Your task to perform on an android device: turn off notifications in google photos Image 0: 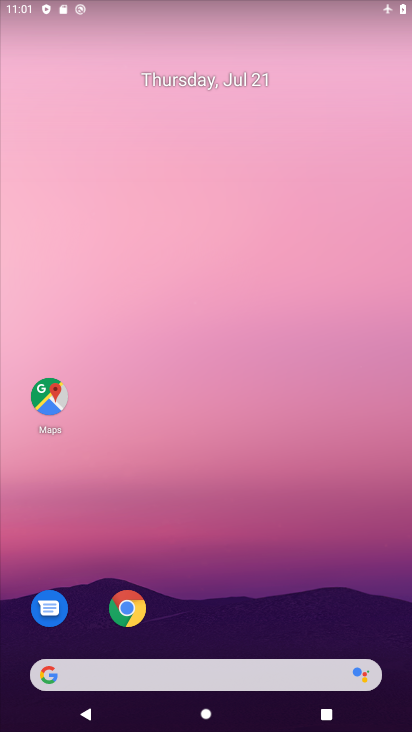
Step 0: drag from (319, 598) to (248, 200)
Your task to perform on an android device: turn off notifications in google photos Image 1: 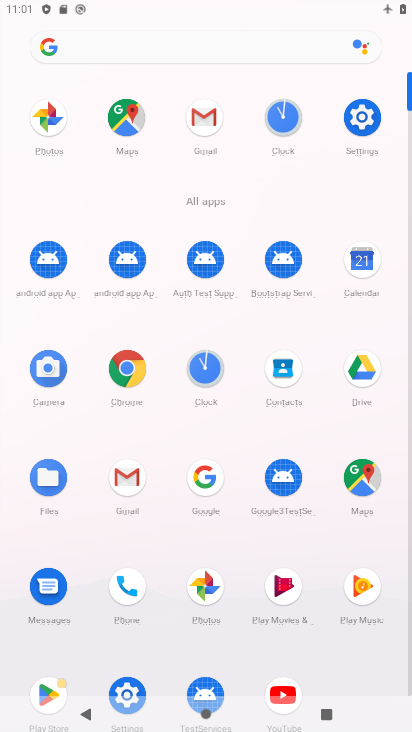
Step 1: click (216, 581)
Your task to perform on an android device: turn off notifications in google photos Image 2: 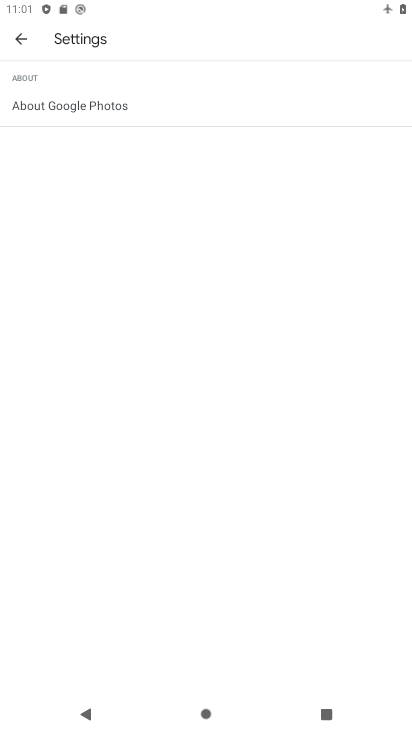
Step 2: click (24, 29)
Your task to perform on an android device: turn off notifications in google photos Image 3: 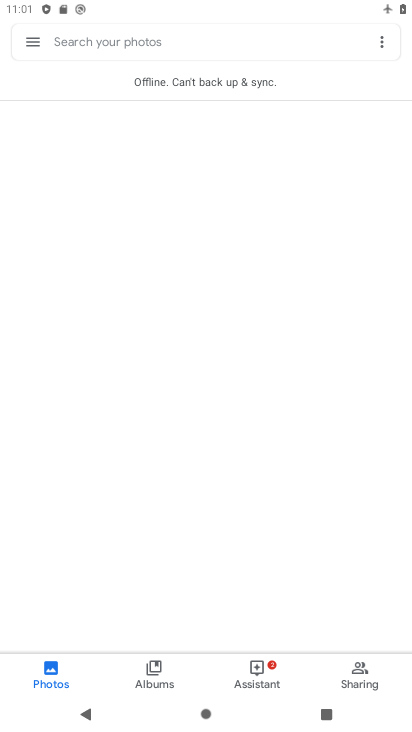
Step 3: drag from (395, 8) to (334, 449)
Your task to perform on an android device: turn off notifications in google photos Image 4: 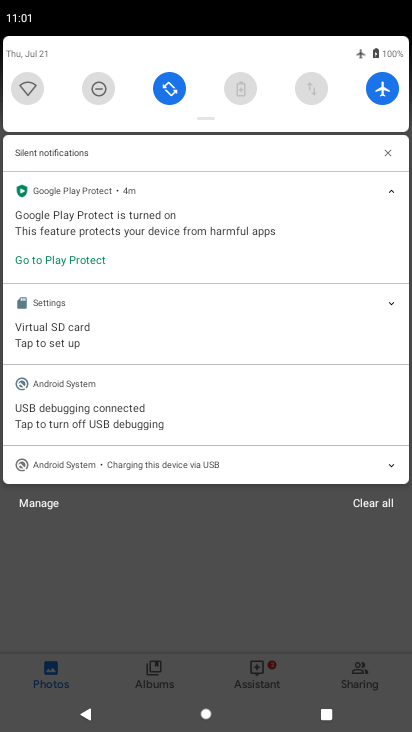
Step 4: click (391, 94)
Your task to perform on an android device: turn off notifications in google photos Image 5: 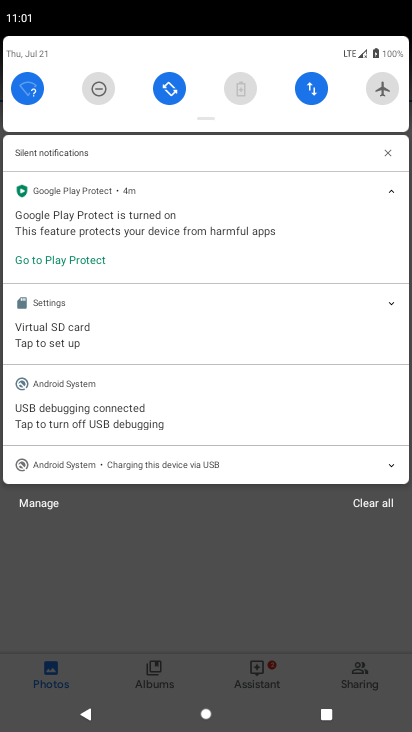
Step 5: click (285, 546)
Your task to perform on an android device: turn off notifications in google photos Image 6: 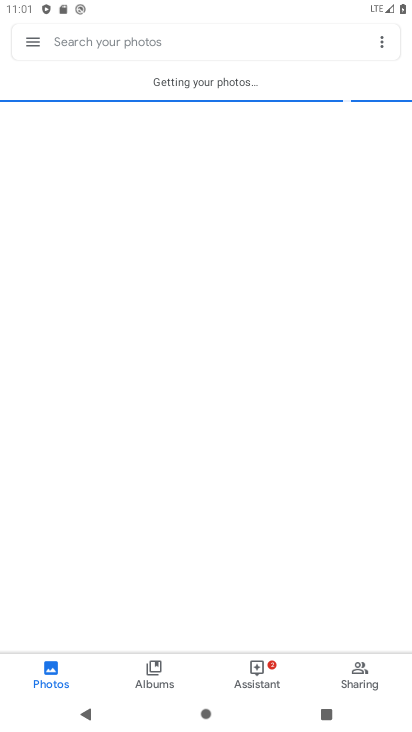
Step 6: click (38, 43)
Your task to perform on an android device: turn off notifications in google photos Image 7: 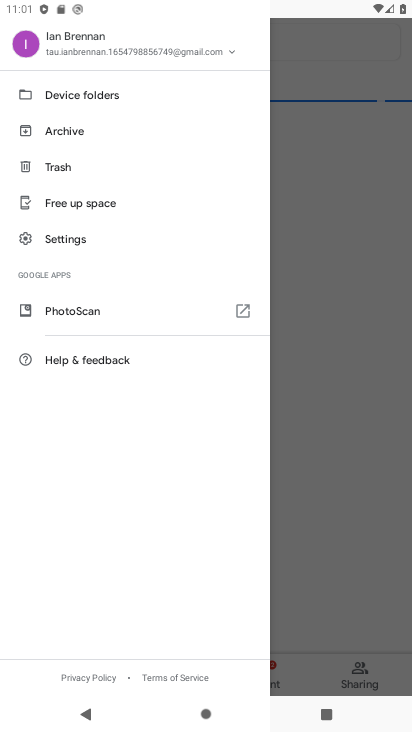
Step 7: click (95, 237)
Your task to perform on an android device: turn off notifications in google photos Image 8: 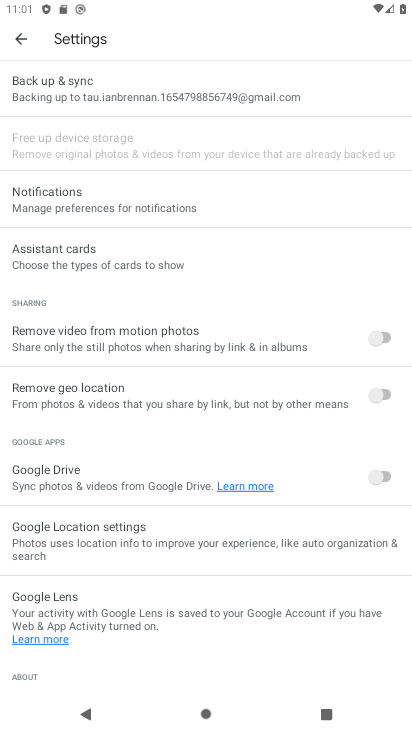
Step 8: click (161, 198)
Your task to perform on an android device: turn off notifications in google photos Image 9: 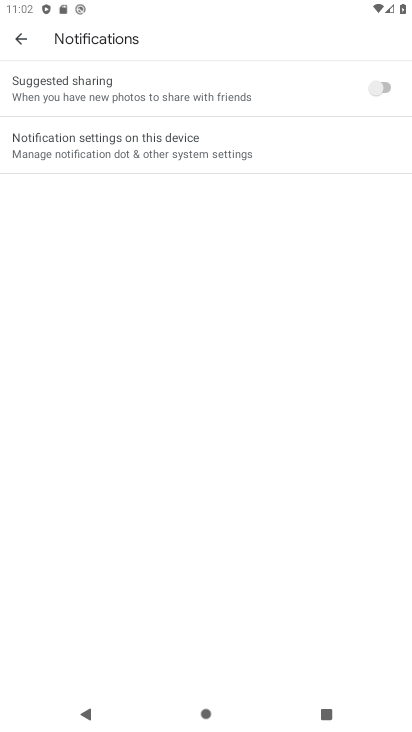
Step 9: click (304, 145)
Your task to perform on an android device: turn off notifications in google photos Image 10: 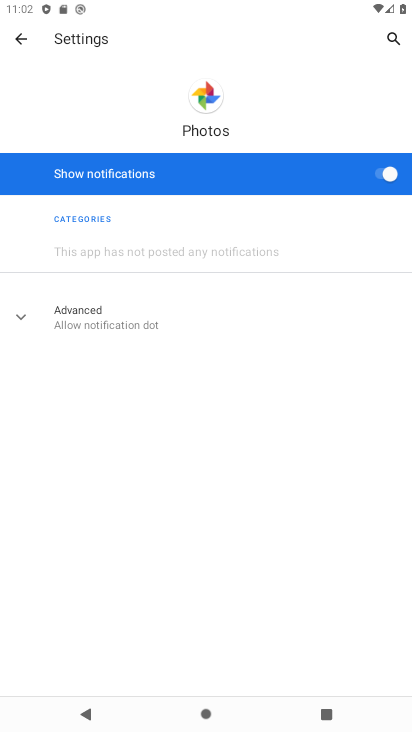
Step 10: click (384, 179)
Your task to perform on an android device: turn off notifications in google photos Image 11: 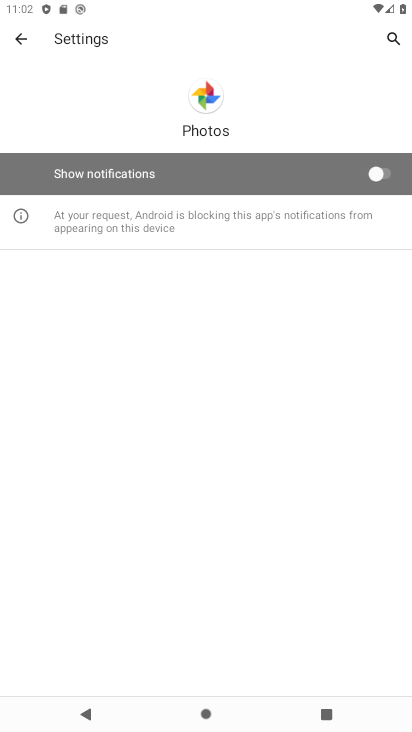
Step 11: task complete